Your task to perform on an android device: Open internet settings Image 0: 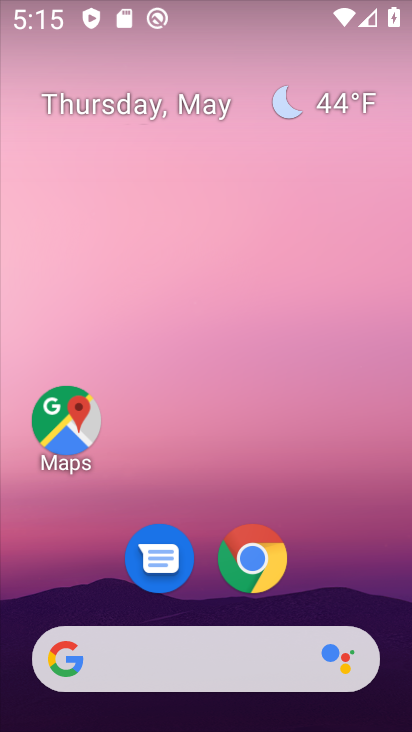
Step 0: drag from (326, 489) to (188, 0)
Your task to perform on an android device: Open internet settings Image 1: 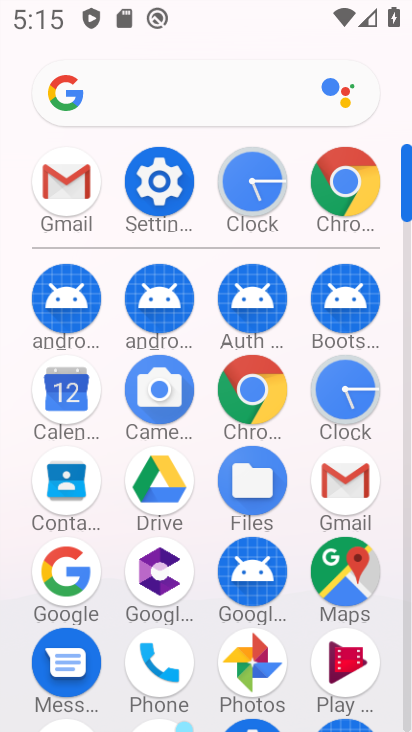
Step 1: drag from (1, 537) to (21, 225)
Your task to perform on an android device: Open internet settings Image 2: 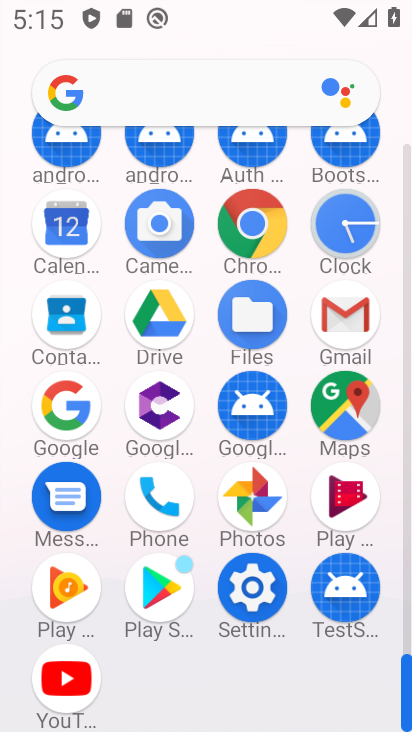
Step 2: click (254, 588)
Your task to perform on an android device: Open internet settings Image 3: 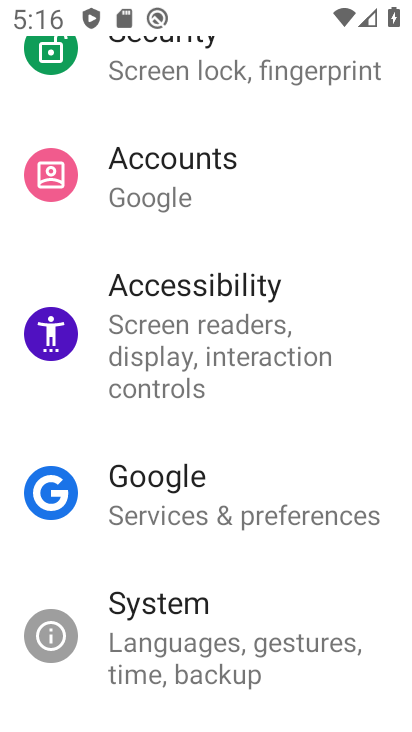
Step 3: drag from (267, 223) to (262, 585)
Your task to perform on an android device: Open internet settings Image 4: 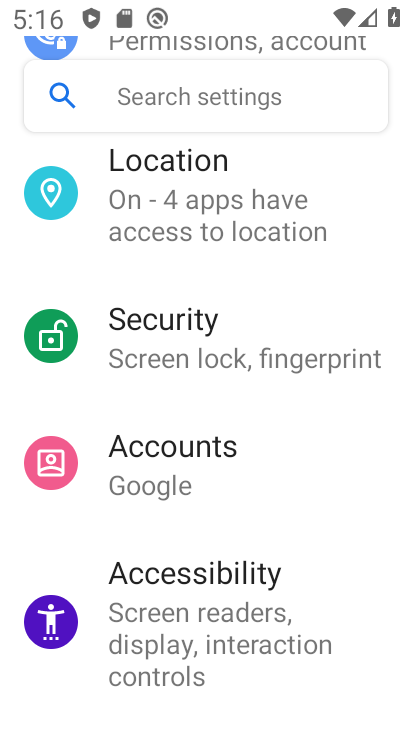
Step 4: drag from (262, 271) to (263, 644)
Your task to perform on an android device: Open internet settings Image 5: 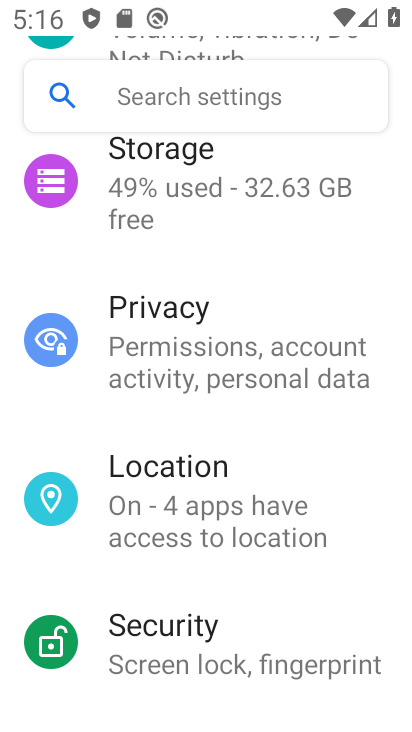
Step 5: drag from (279, 291) to (284, 647)
Your task to perform on an android device: Open internet settings Image 6: 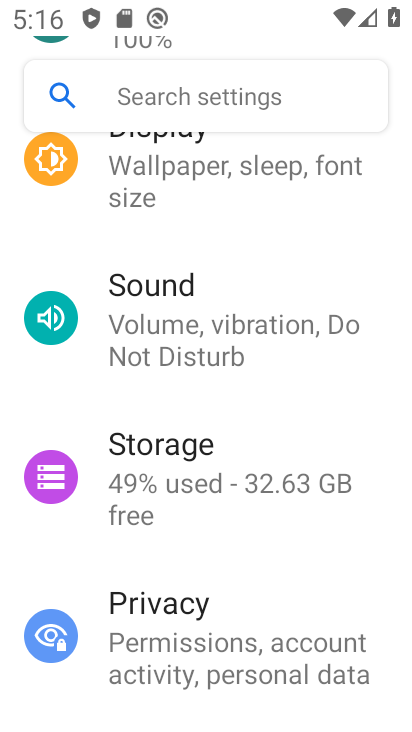
Step 6: drag from (287, 300) to (292, 647)
Your task to perform on an android device: Open internet settings Image 7: 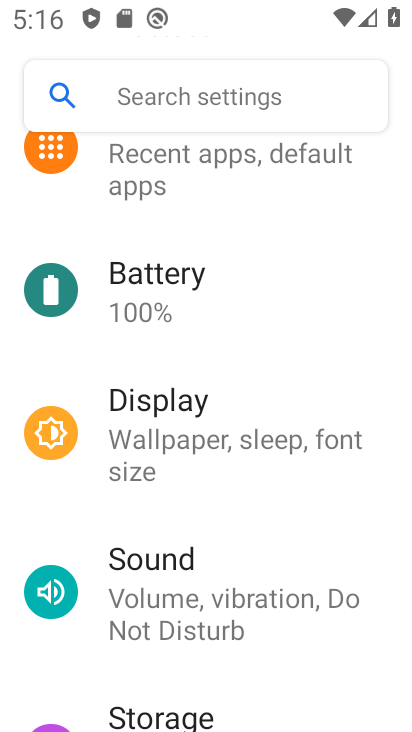
Step 7: drag from (283, 292) to (285, 654)
Your task to perform on an android device: Open internet settings Image 8: 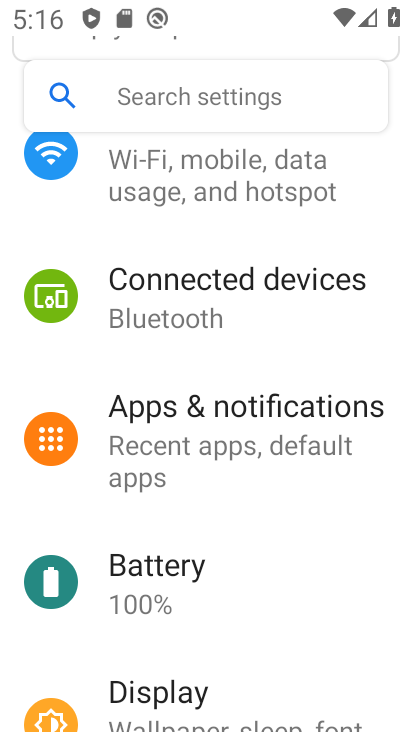
Step 8: drag from (261, 257) to (259, 681)
Your task to perform on an android device: Open internet settings Image 9: 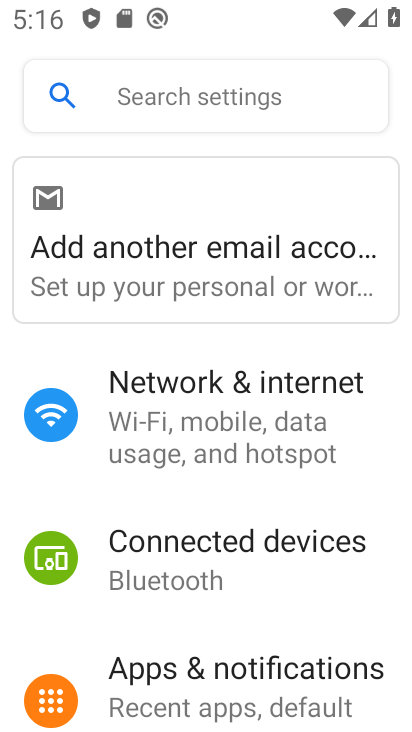
Step 9: click (223, 391)
Your task to perform on an android device: Open internet settings Image 10: 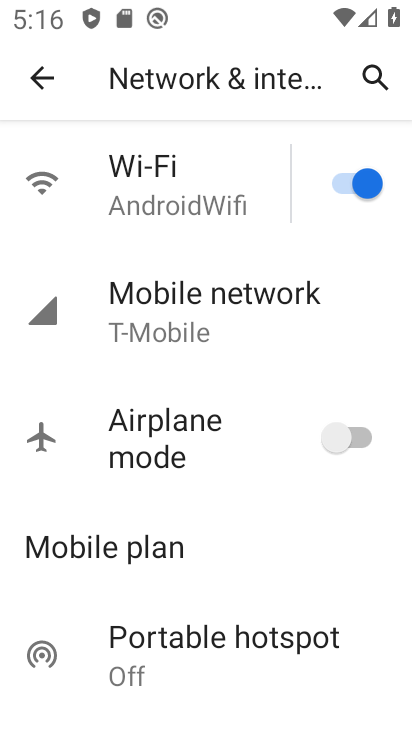
Step 10: drag from (209, 567) to (220, 194)
Your task to perform on an android device: Open internet settings Image 11: 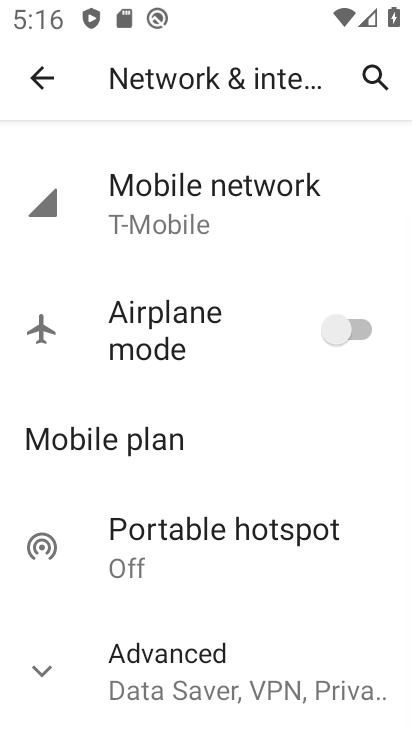
Step 11: drag from (228, 613) to (228, 334)
Your task to perform on an android device: Open internet settings Image 12: 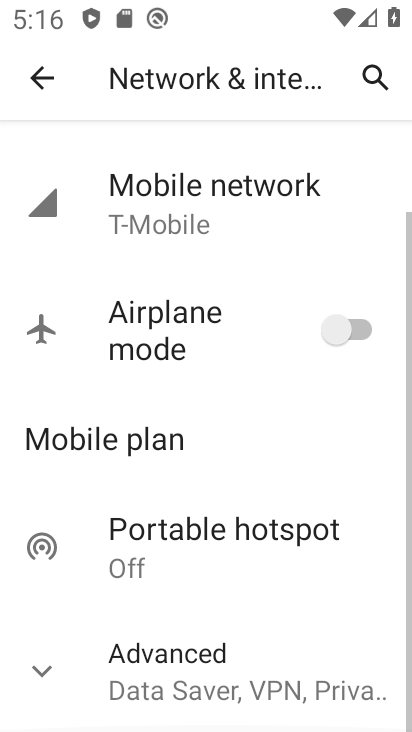
Step 12: click (37, 655)
Your task to perform on an android device: Open internet settings Image 13: 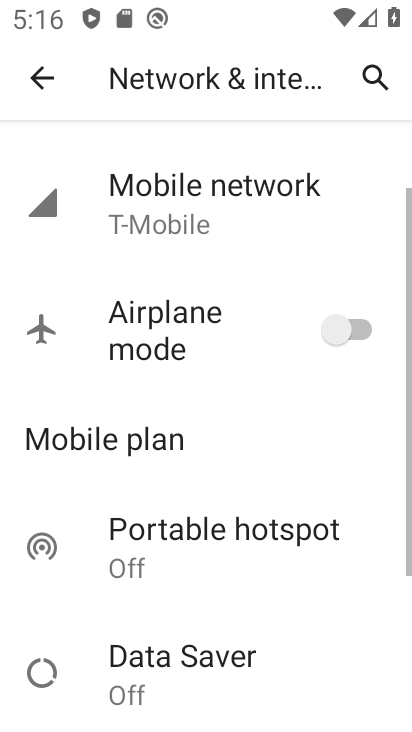
Step 13: drag from (215, 612) to (220, 191)
Your task to perform on an android device: Open internet settings Image 14: 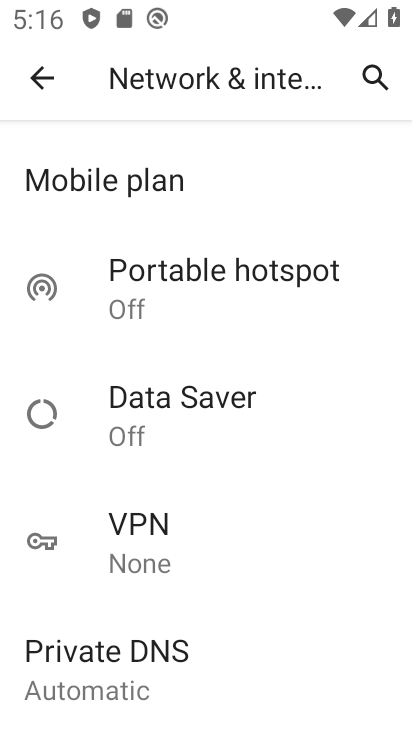
Step 14: drag from (230, 550) to (222, 232)
Your task to perform on an android device: Open internet settings Image 15: 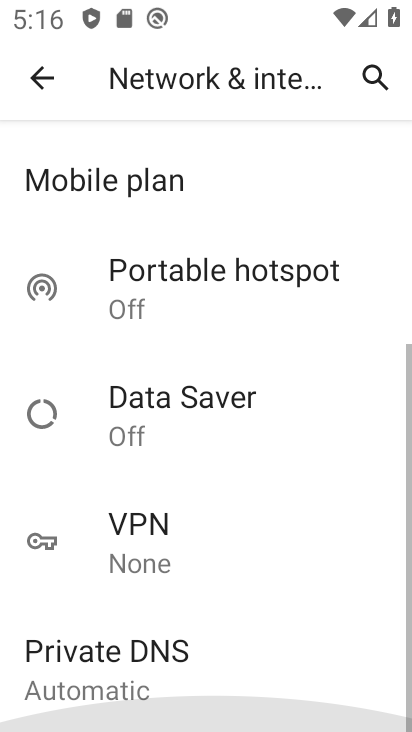
Step 15: drag from (220, 218) to (230, 650)
Your task to perform on an android device: Open internet settings Image 16: 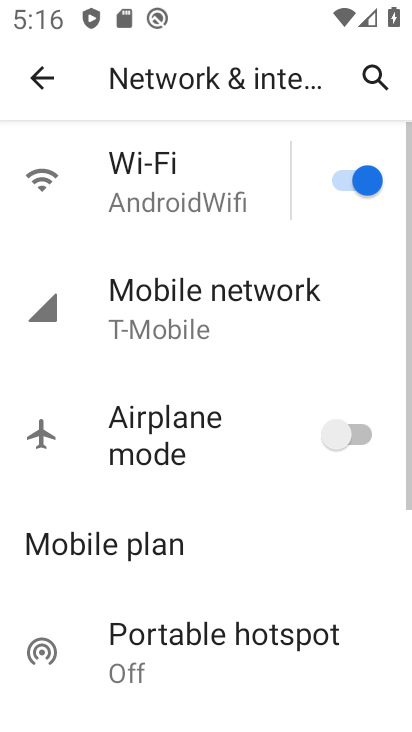
Step 16: drag from (184, 217) to (223, 629)
Your task to perform on an android device: Open internet settings Image 17: 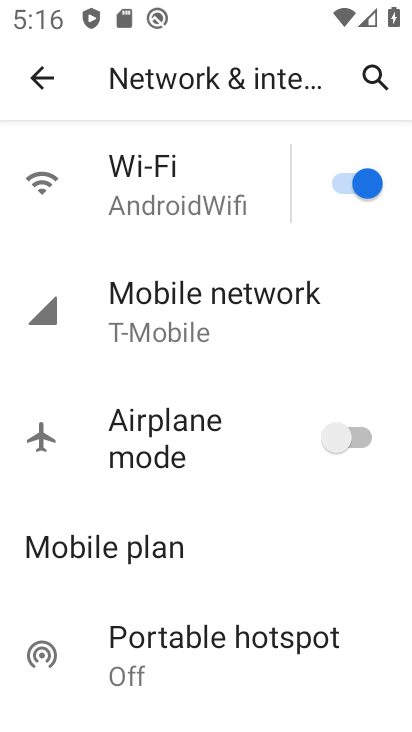
Step 17: click (213, 312)
Your task to perform on an android device: Open internet settings Image 18: 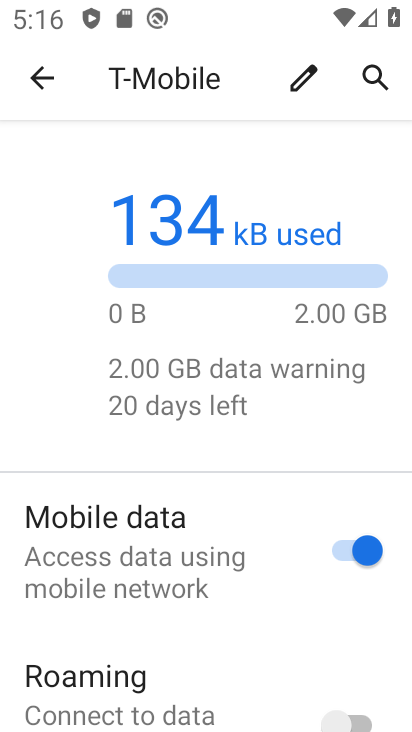
Step 18: click (62, 74)
Your task to perform on an android device: Open internet settings Image 19: 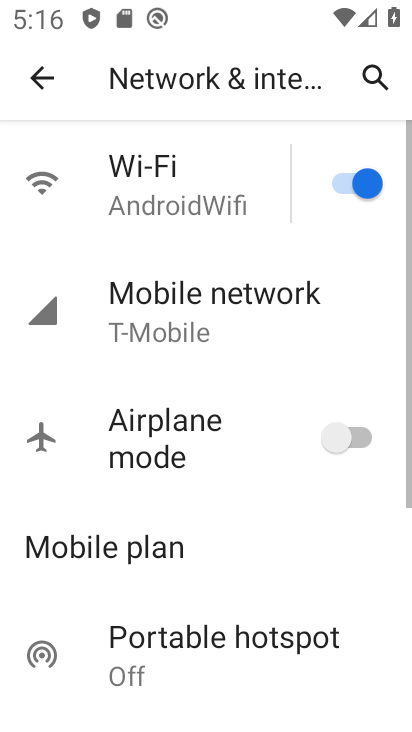
Step 19: task complete